Your task to perform on an android device: Go to eBay Image 0: 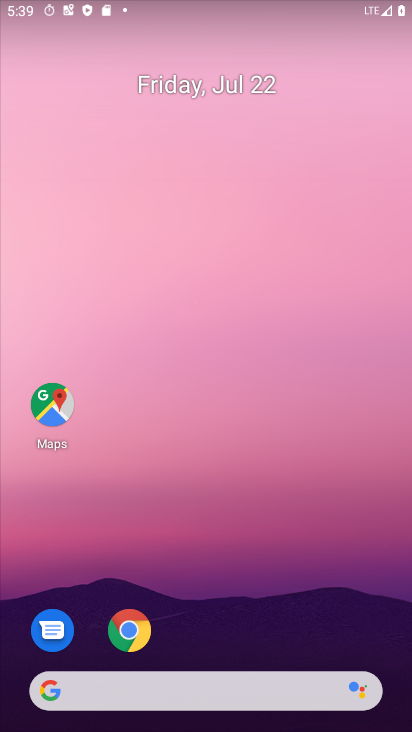
Step 0: drag from (206, 682) to (193, 3)
Your task to perform on an android device: Go to eBay Image 1: 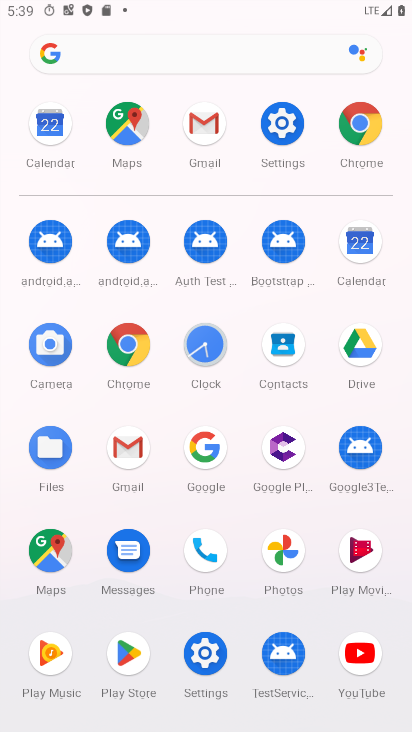
Step 1: click (120, 336)
Your task to perform on an android device: Go to eBay Image 2: 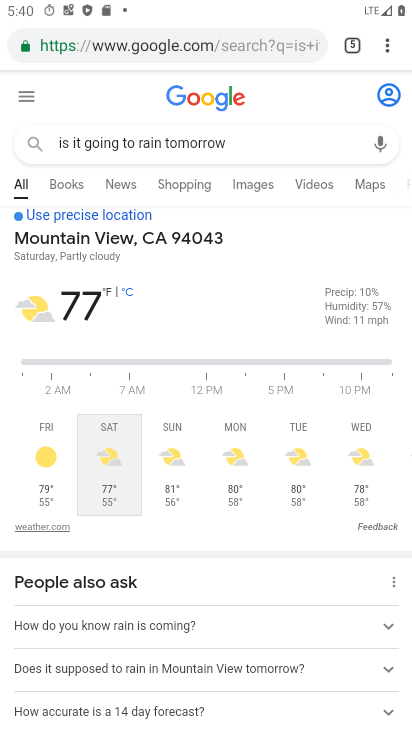
Step 2: drag from (383, 41) to (271, 73)
Your task to perform on an android device: Go to eBay Image 3: 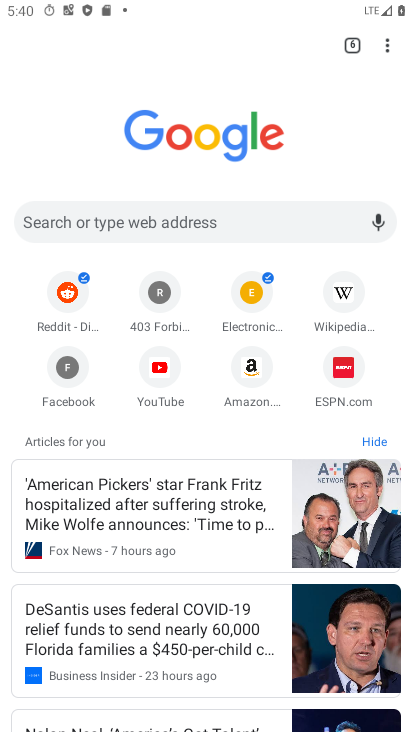
Step 3: click (274, 222)
Your task to perform on an android device: Go to eBay Image 4: 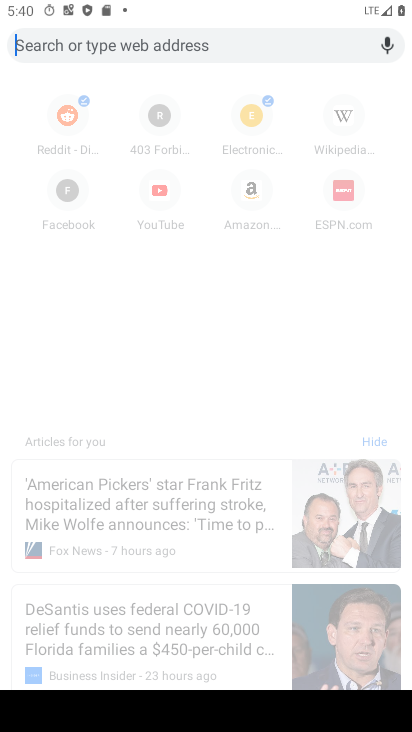
Step 4: type "ebay"
Your task to perform on an android device: Go to eBay Image 5: 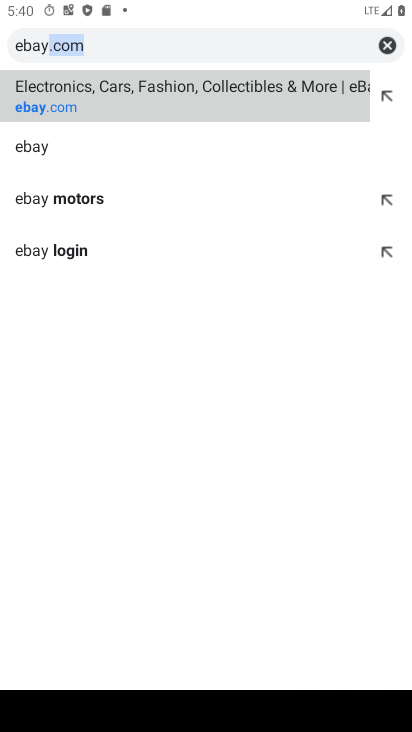
Step 5: click (255, 87)
Your task to perform on an android device: Go to eBay Image 6: 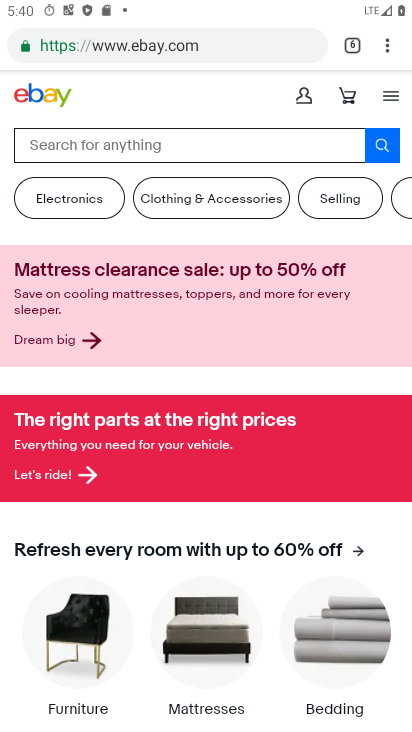
Step 6: task complete